Your task to perform on an android device: Check the weather Image 0: 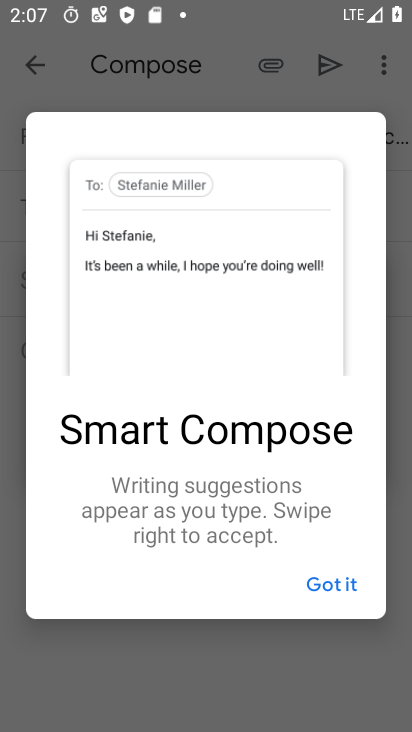
Step 0: press home button
Your task to perform on an android device: Check the weather Image 1: 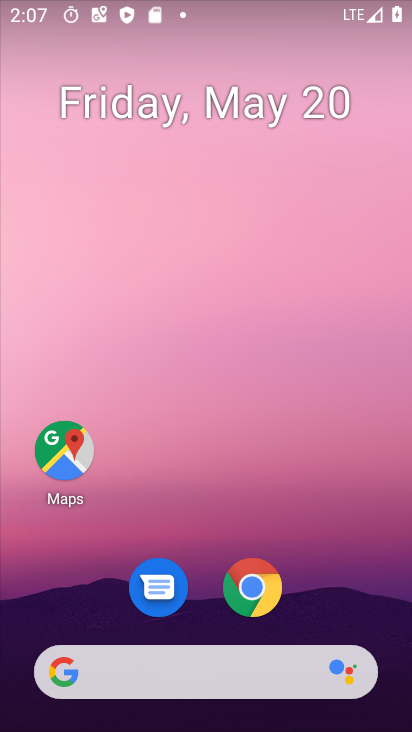
Step 1: drag from (345, 563) to (364, 159)
Your task to perform on an android device: Check the weather Image 2: 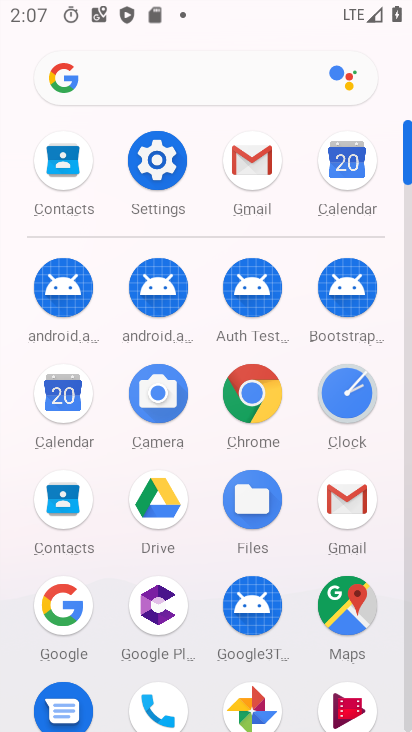
Step 2: click (247, 397)
Your task to perform on an android device: Check the weather Image 3: 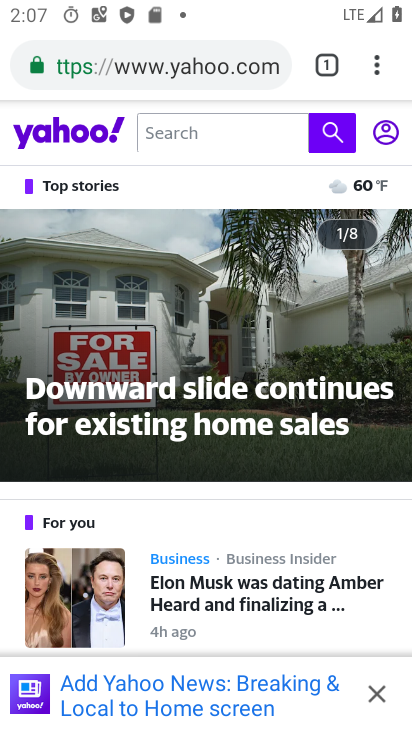
Step 3: click (186, 62)
Your task to perform on an android device: Check the weather Image 4: 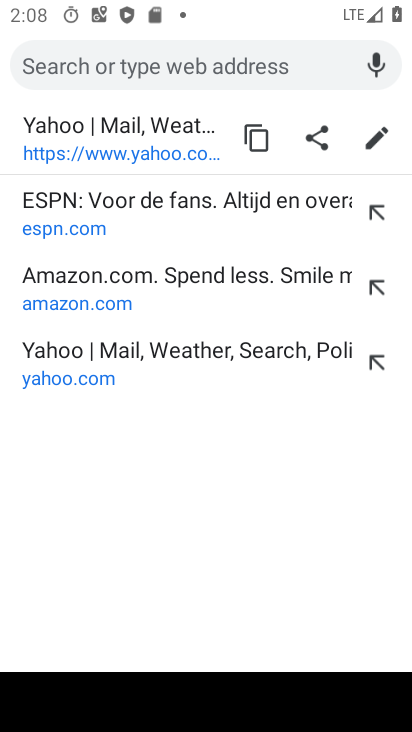
Step 4: type "weather"
Your task to perform on an android device: Check the weather Image 5: 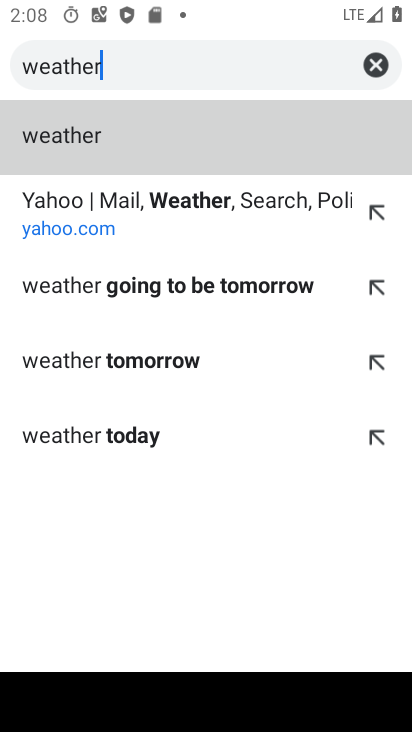
Step 5: click (78, 128)
Your task to perform on an android device: Check the weather Image 6: 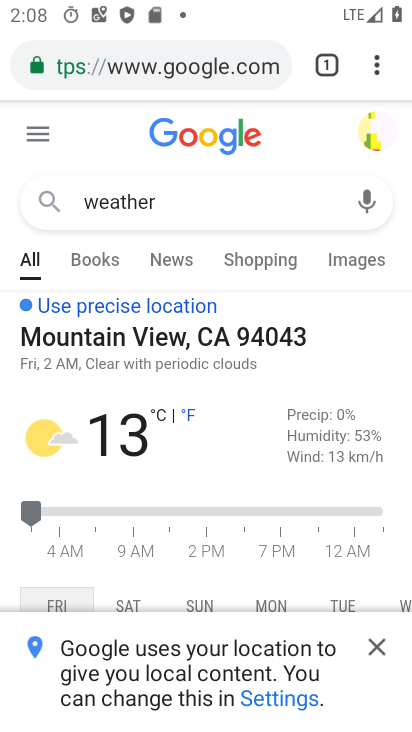
Step 6: task complete